Your task to perform on an android device: Search for pizza restaurants on Maps Image 0: 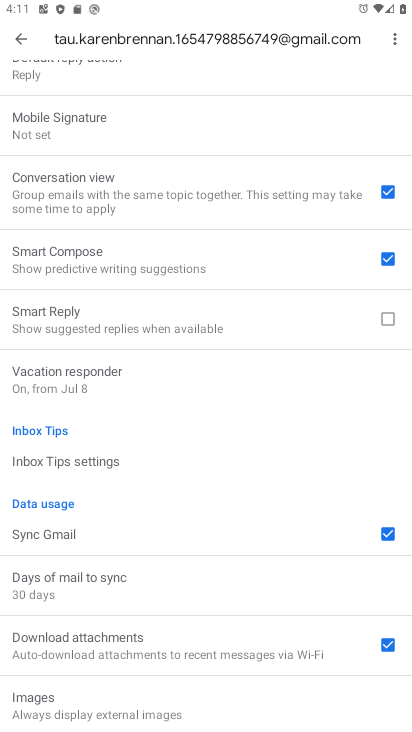
Step 0: press home button
Your task to perform on an android device: Search for pizza restaurants on Maps Image 1: 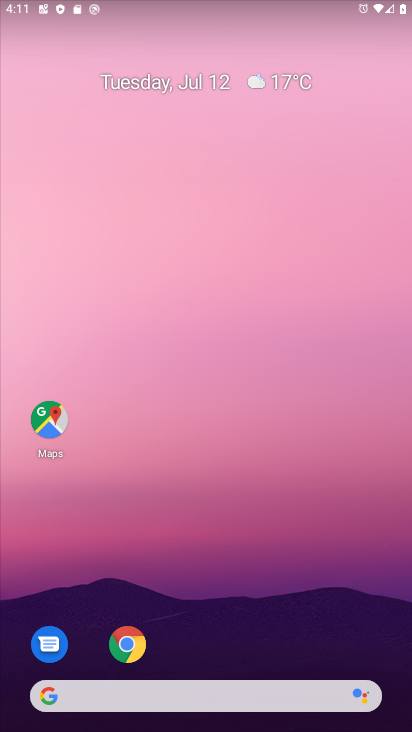
Step 1: click (46, 421)
Your task to perform on an android device: Search for pizza restaurants on Maps Image 2: 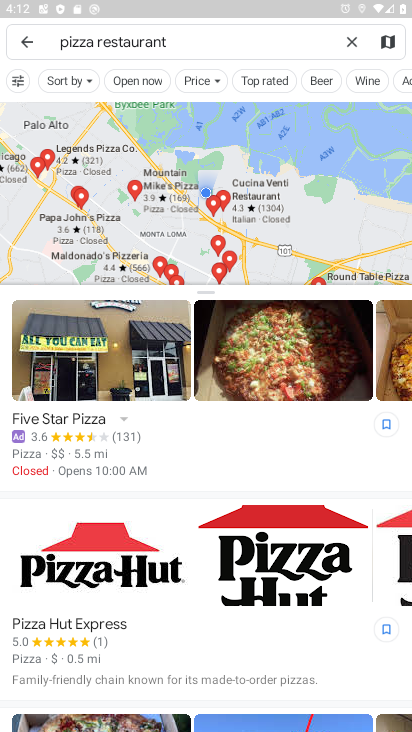
Step 2: task complete